Your task to perform on an android device: Open Yahoo.com Image 0: 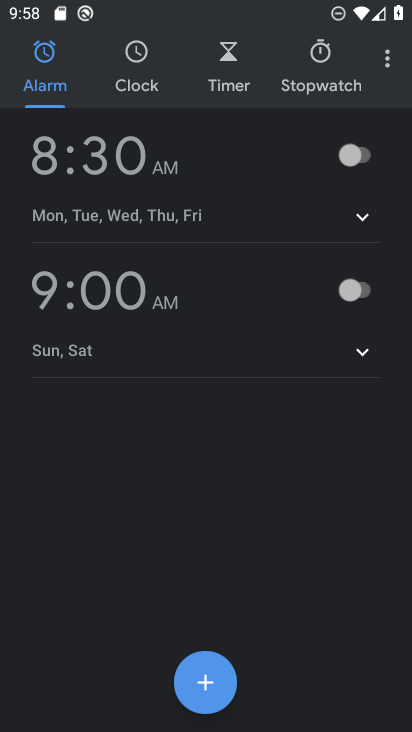
Step 0: press home button
Your task to perform on an android device: Open Yahoo.com Image 1: 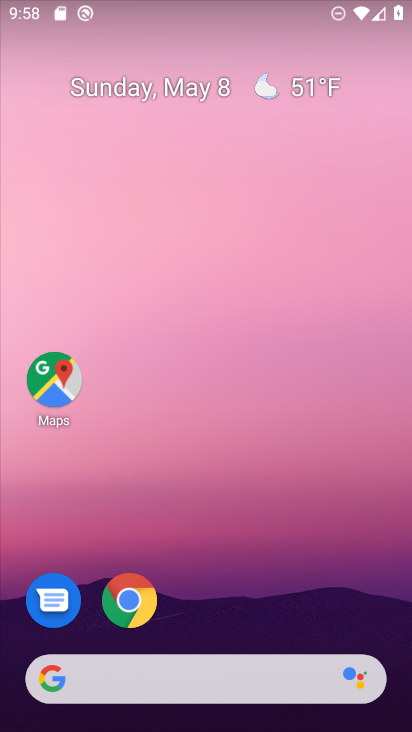
Step 1: click (130, 602)
Your task to perform on an android device: Open Yahoo.com Image 2: 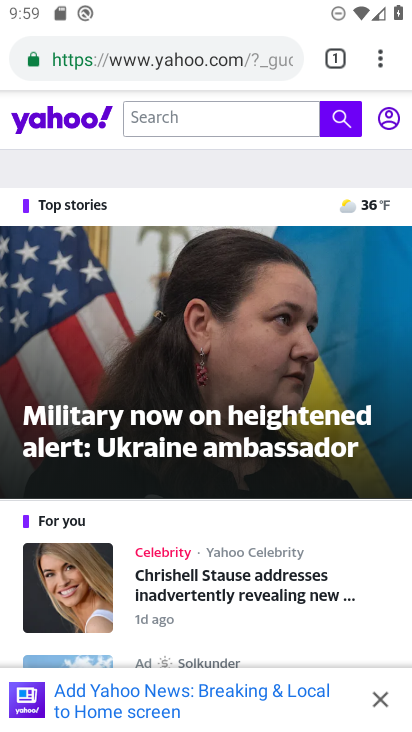
Step 2: task complete